Your task to perform on an android device: Go to wifi settings Image 0: 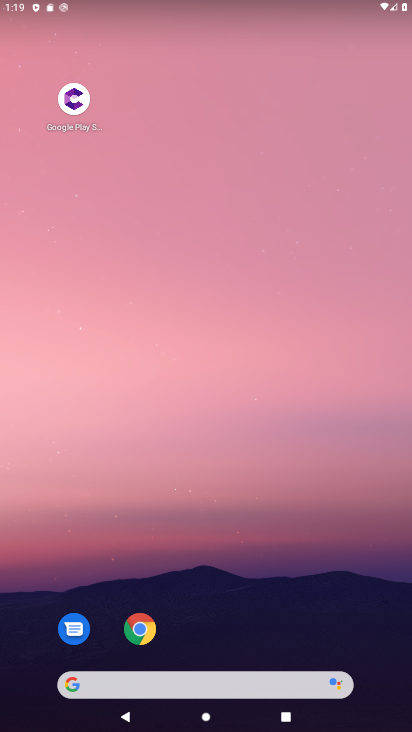
Step 0: drag from (219, 632) to (283, 144)
Your task to perform on an android device: Go to wifi settings Image 1: 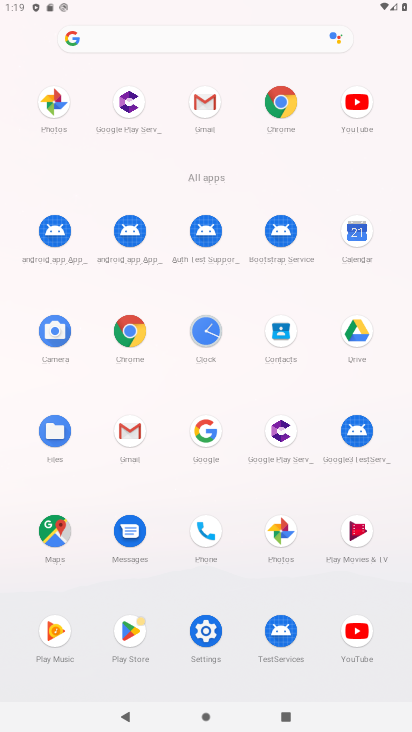
Step 1: click (207, 637)
Your task to perform on an android device: Go to wifi settings Image 2: 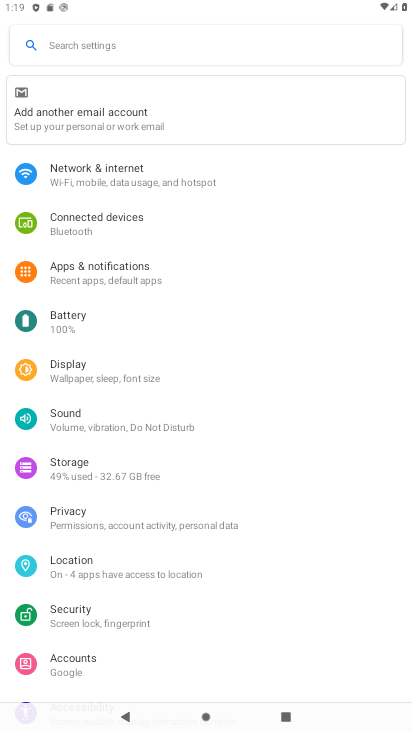
Step 2: click (127, 168)
Your task to perform on an android device: Go to wifi settings Image 3: 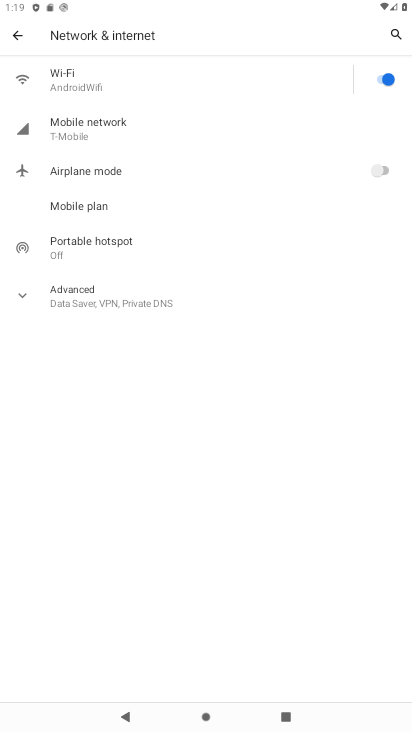
Step 3: click (107, 86)
Your task to perform on an android device: Go to wifi settings Image 4: 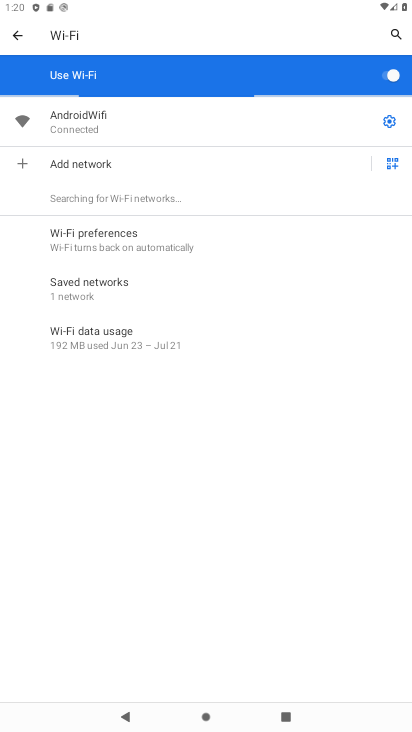
Step 4: task complete